Your task to perform on an android device: add a contact in the contacts app Image 0: 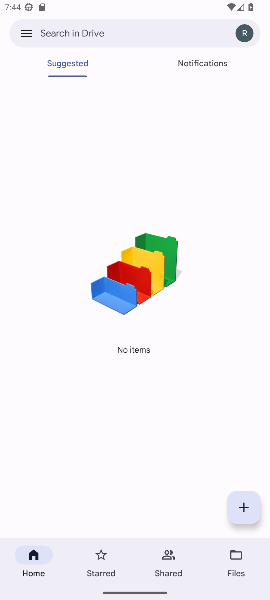
Step 0: press home button
Your task to perform on an android device: add a contact in the contacts app Image 1: 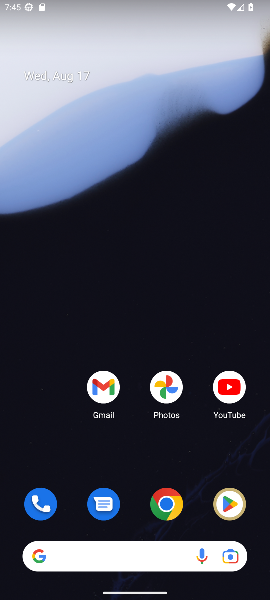
Step 1: drag from (115, 448) to (144, 48)
Your task to perform on an android device: add a contact in the contacts app Image 2: 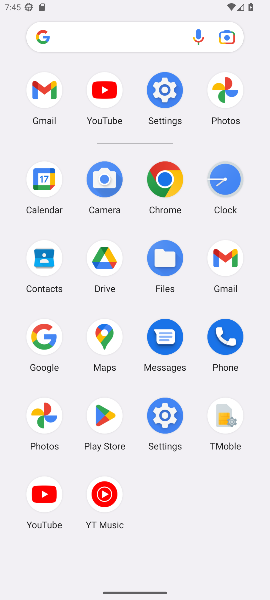
Step 2: click (42, 266)
Your task to perform on an android device: add a contact in the contacts app Image 3: 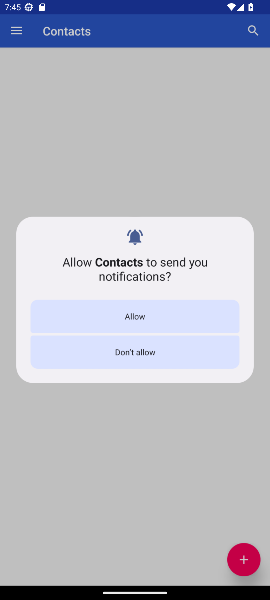
Step 3: click (238, 552)
Your task to perform on an android device: add a contact in the contacts app Image 4: 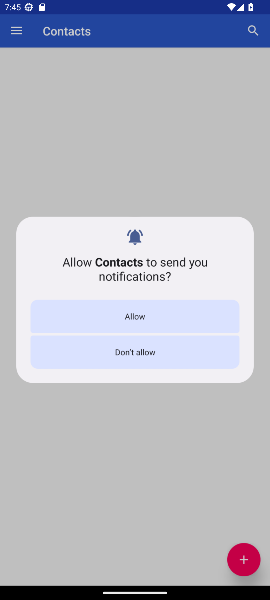
Step 4: click (251, 563)
Your task to perform on an android device: add a contact in the contacts app Image 5: 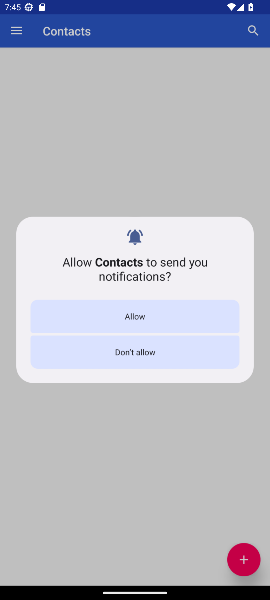
Step 5: click (157, 323)
Your task to perform on an android device: add a contact in the contacts app Image 6: 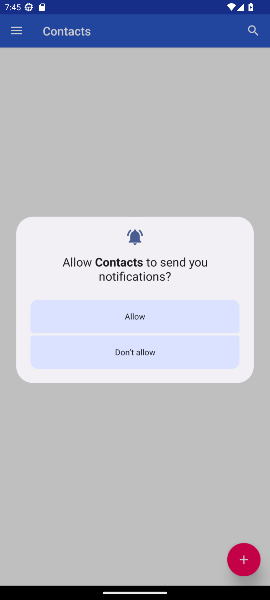
Step 6: click (159, 320)
Your task to perform on an android device: add a contact in the contacts app Image 7: 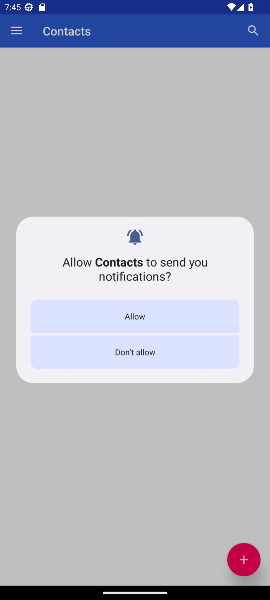
Step 7: click (146, 319)
Your task to perform on an android device: add a contact in the contacts app Image 8: 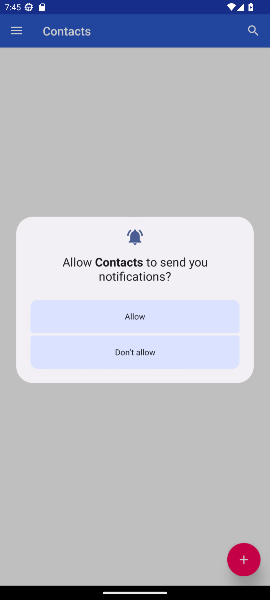
Step 8: click (146, 319)
Your task to perform on an android device: add a contact in the contacts app Image 9: 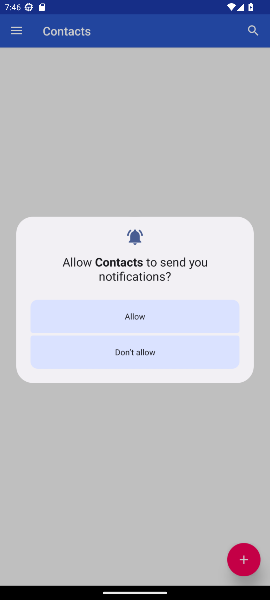
Step 9: click (146, 319)
Your task to perform on an android device: add a contact in the contacts app Image 10: 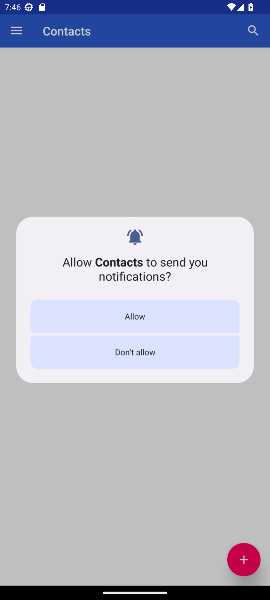
Step 10: click (240, 561)
Your task to perform on an android device: add a contact in the contacts app Image 11: 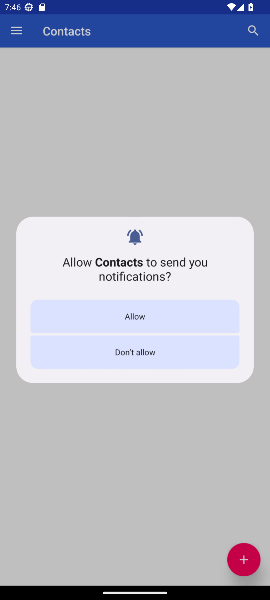
Step 11: click (123, 312)
Your task to perform on an android device: add a contact in the contacts app Image 12: 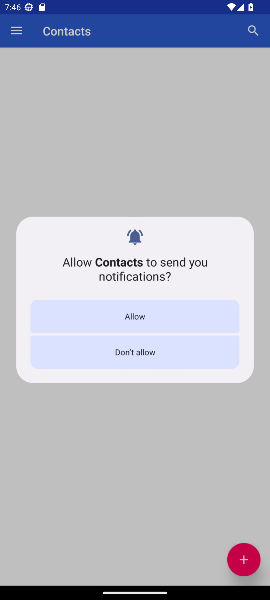
Step 12: click (124, 313)
Your task to perform on an android device: add a contact in the contacts app Image 13: 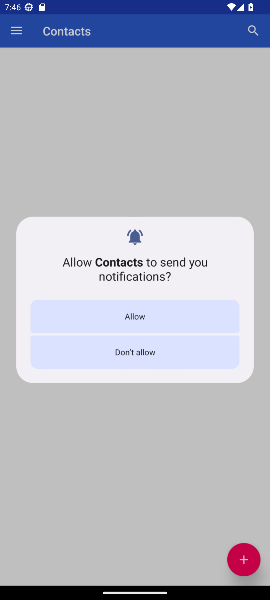
Step 13: click (139, 317)
Your task to perform on an android device: add a contact in the contacts app Image 14: 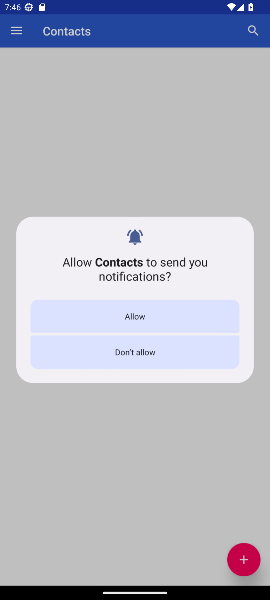
Step 14: click (139, 317)
Your task to perform on an android device: add a contact in the contacts app Image 15: 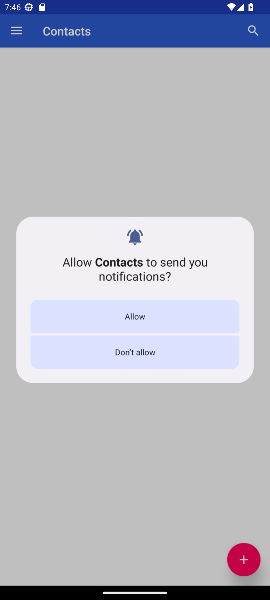
Step 15: click (248, 559)
Your task to perform on an android device: add a contact in the contacts app Image 16: 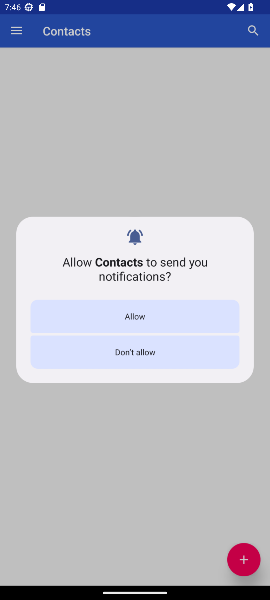
Step 16: click (158, 449)
Your task to perform on an android device: add a contact in the contacts app Image 17: 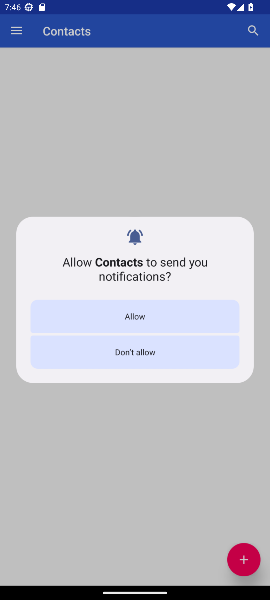
Step 17: task complete